Your task to perform on an android device: What's the weather? Image 0: 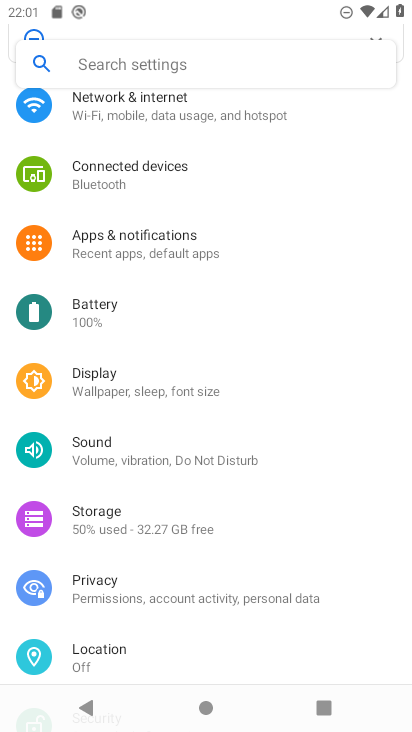
Step 0: press home button
Your task to perform on an android device: What's the weather? Image 1: 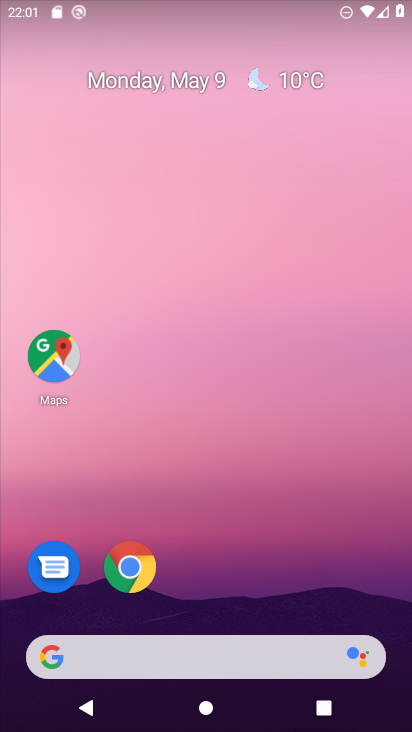
Step 1: click (291, 79)
Your task to perform on an android device: What's the weather? Image 2: 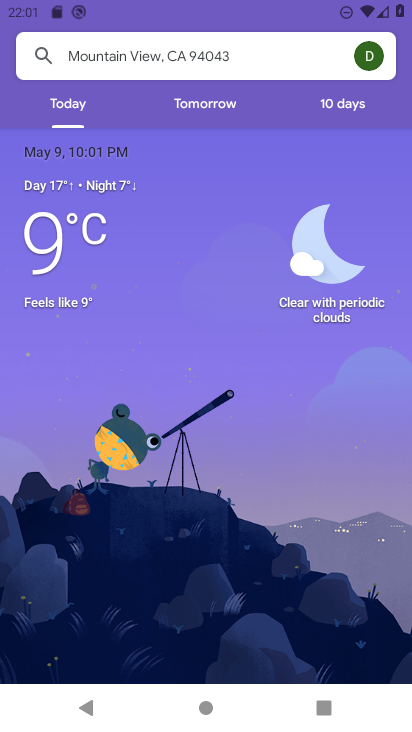
Step 2: task complete